Your task to perform on an android device: check android version Image 0: 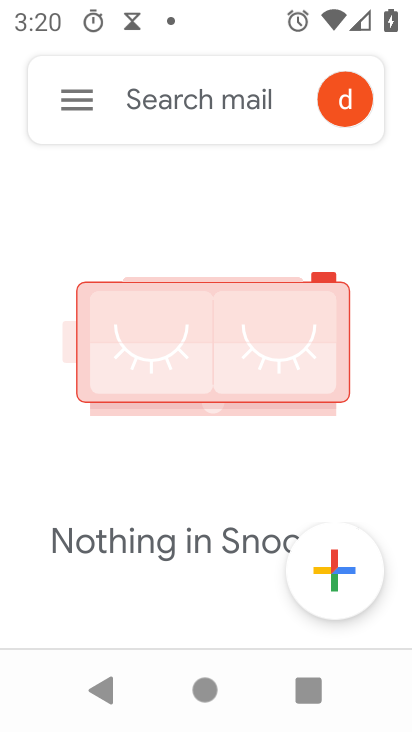
Step 0: press home button
Your task to perform on an android device: check android version Image 1: 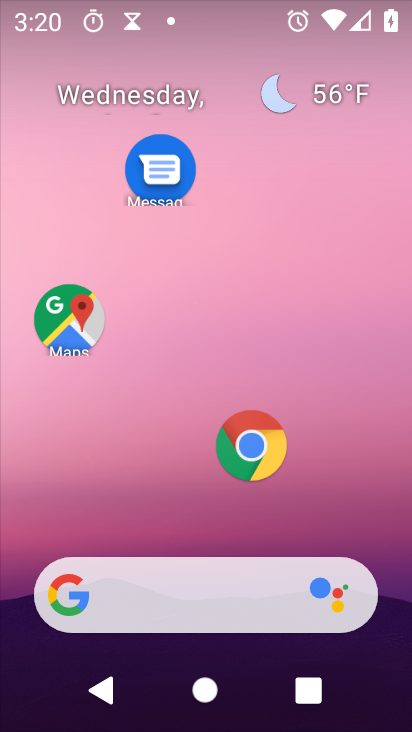
Step 1: drag from (7, 702) to (397, 60)
Your task to perform on an android device: check android version Image 2: 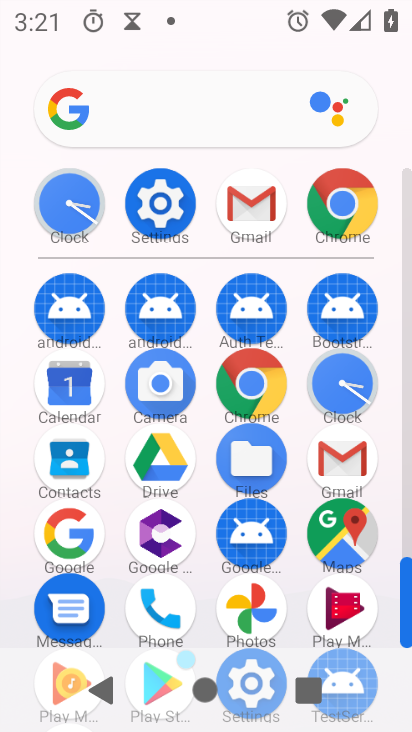
Step 2: drag from (57, 463) to (168, 241)
Your task to perform on an android device: check android version Image 3: 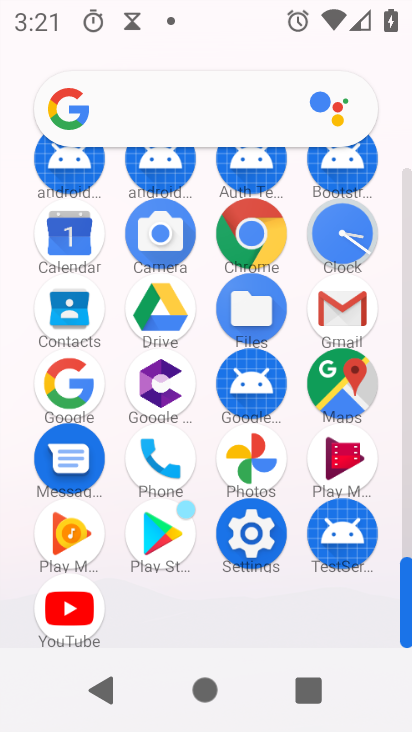
Step 3: click (250, 530)
Your task to perform on an android device: check android version Image 4: 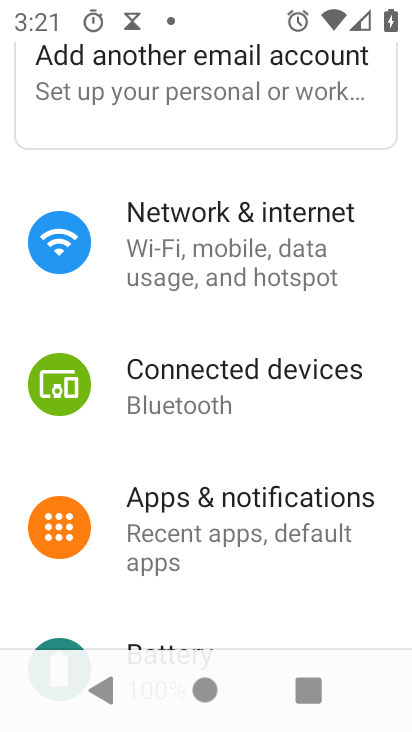
Step 4: drag from (15, 483) to (179, 50)
Your task to perform on an android device: check android version Image 5: 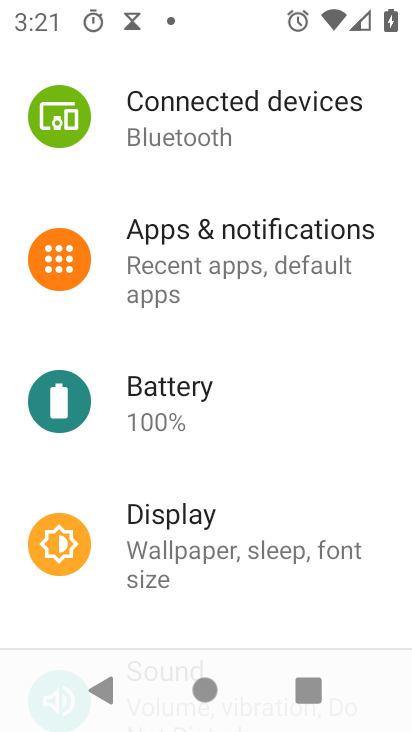
Step 5: drag from (40, 389) to (134, 152)
Your task to perform on an android device: check android version Image 6: 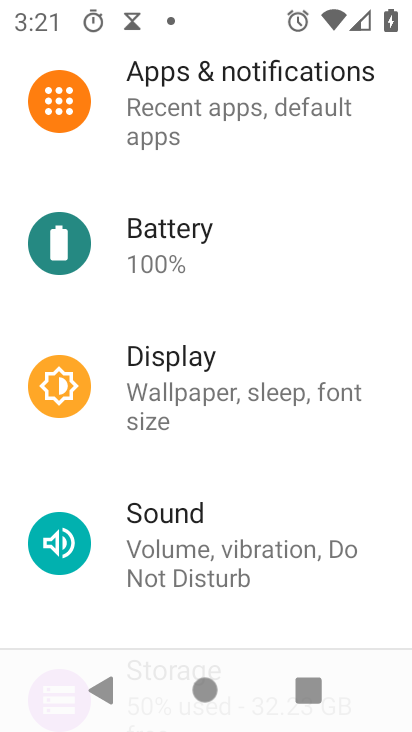
Step 6: drag from (42, 378) to (182, 55)
Your task to perform on an android device: check android version Image 7: 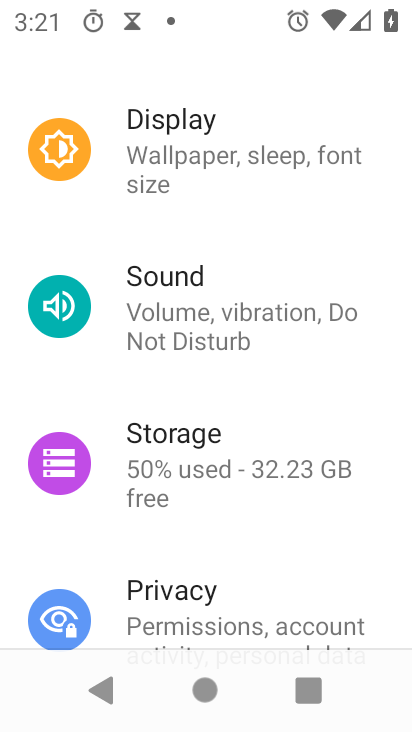
Step 7: drag from (2, 476) to (246, 53)
Your task to perform on an android device: check android version Image 8: 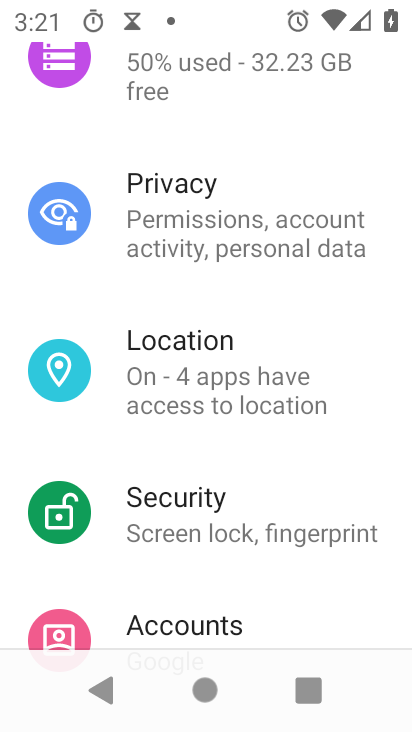
Step 8: drag from (26, 414) to (141, 128)
Your task to perform on an android device: check android version Image 9: 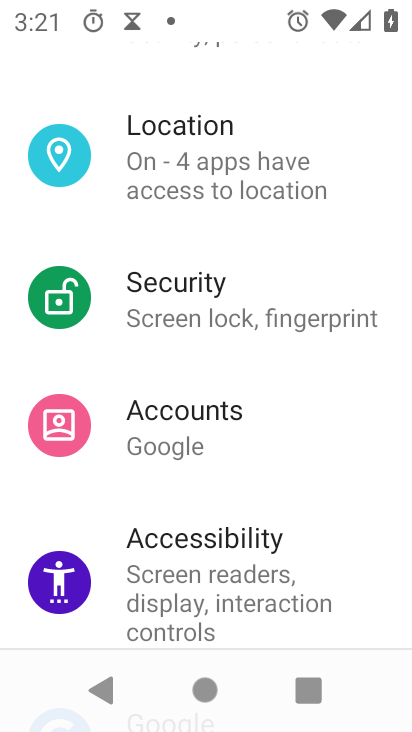
Step 9: drag from (59, 505) to (210, 181)
Your task to perform on an android device: check android version Image 10: 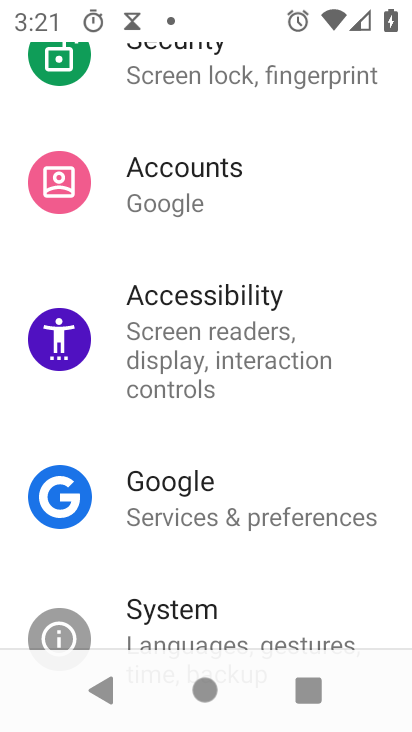
Step 10: drag from (49, 497) to (279, 166)
Your task to perform on an android device: check android version Image 11: 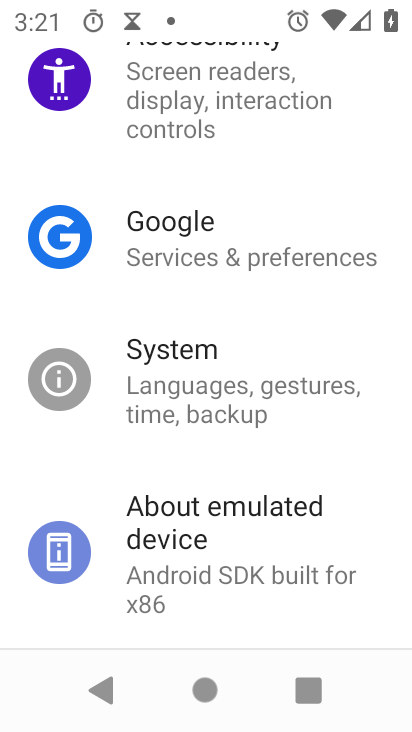
Step 11: click (233, 534)
Your task to perform on an android device: check android version Image 12: 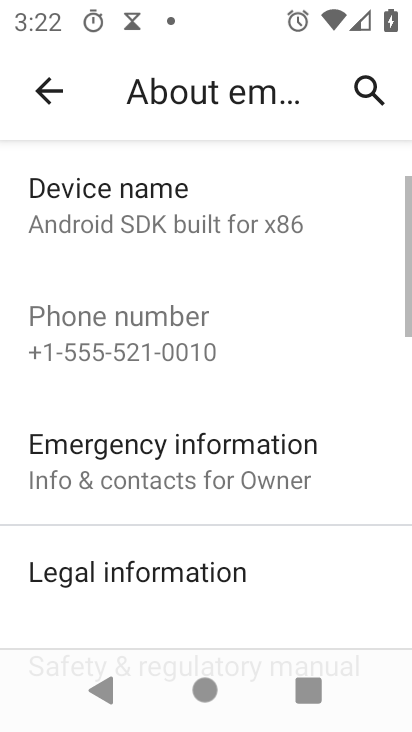
Step 12: task complete